Your task to perform on an android device: Go to Maps Image 0: 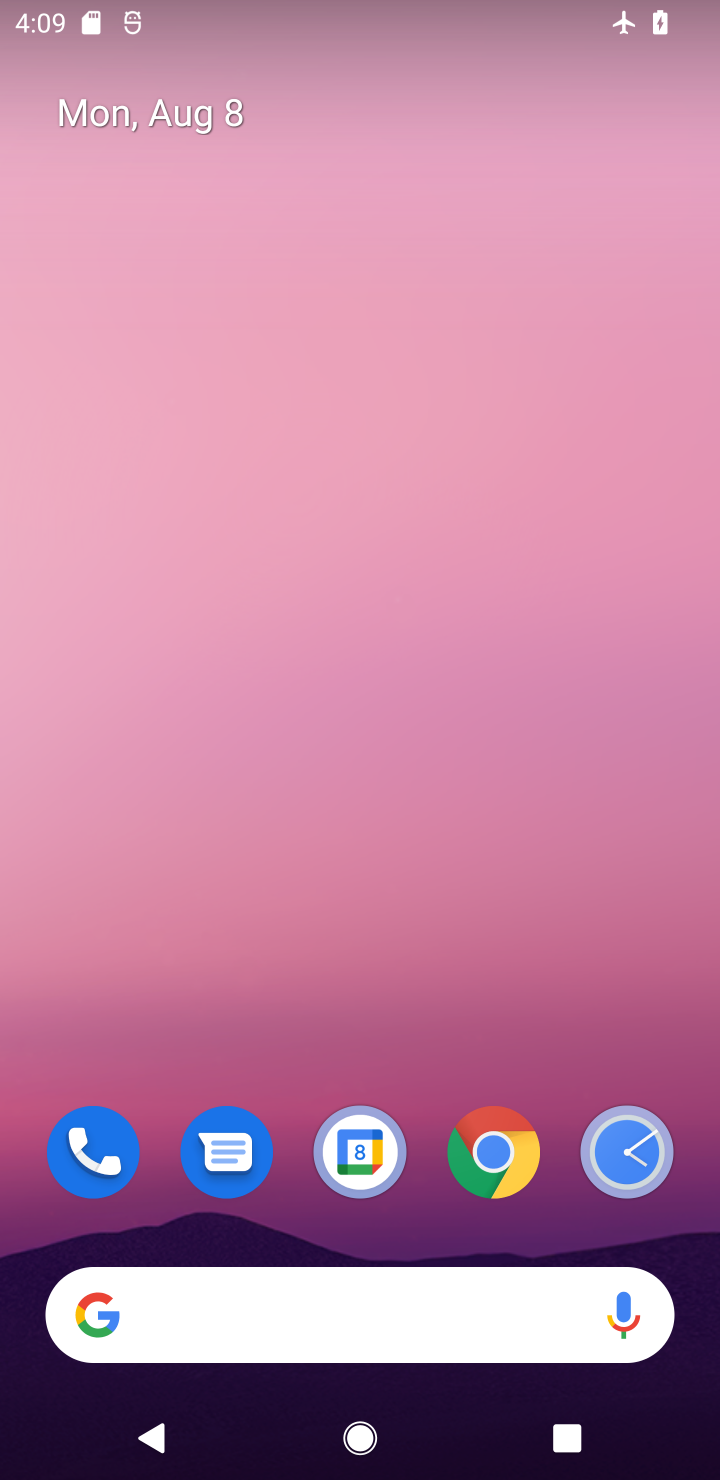
Step 0: drag from (300, 1290) to (448, 11)
Your task to perform on an android device: Go to Maps Image 1: 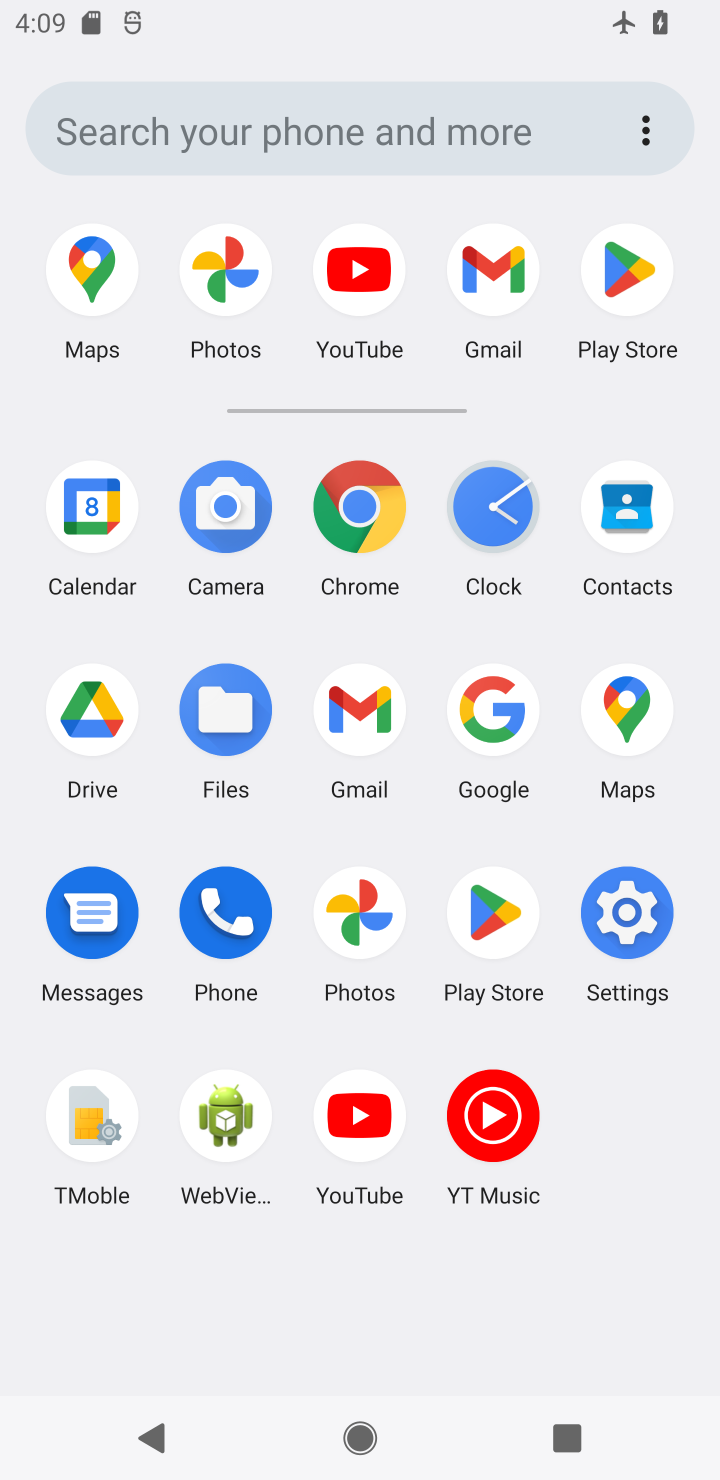
Step 1: click (631, 712)
Your task to perform on an android device: Go to Maps Image 2: 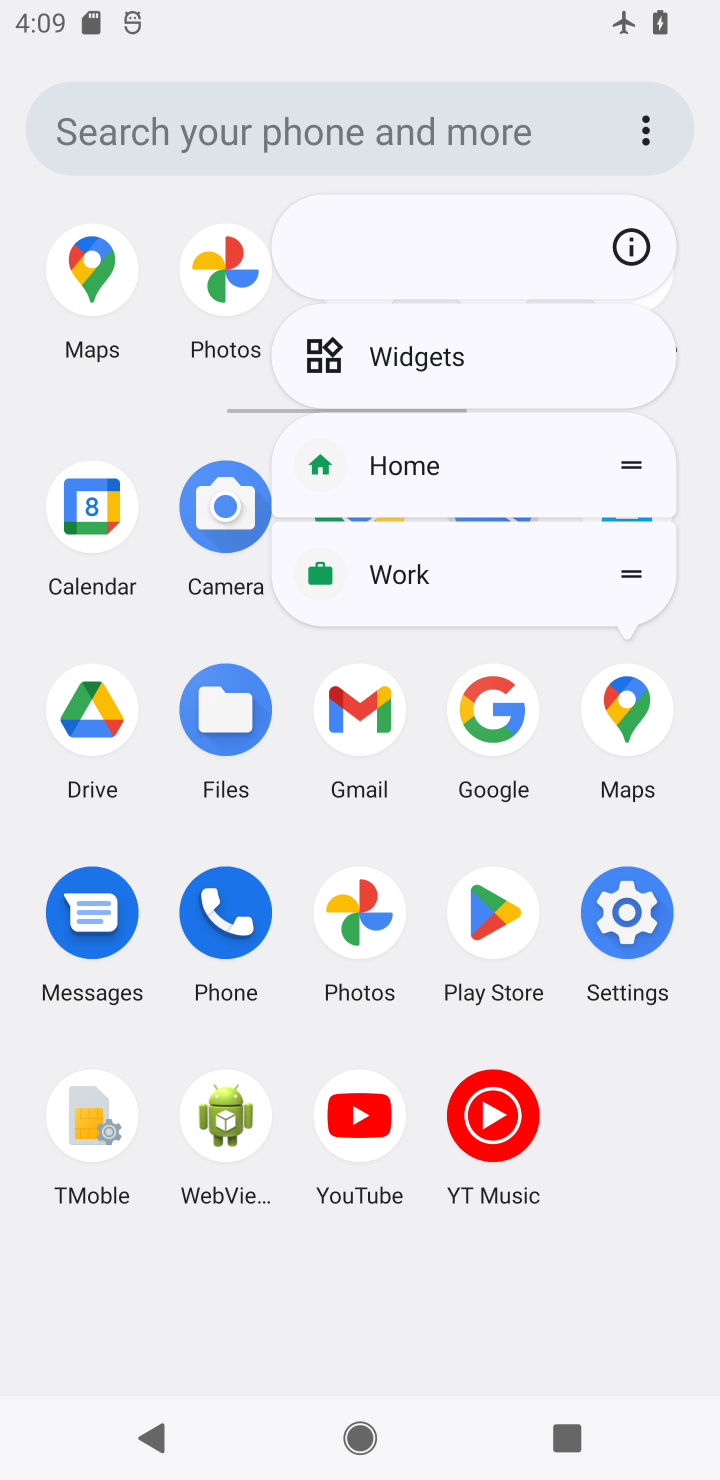
Step 2: click (615, 719)
Your task to perform on an android device: Go to Maps Image 3: 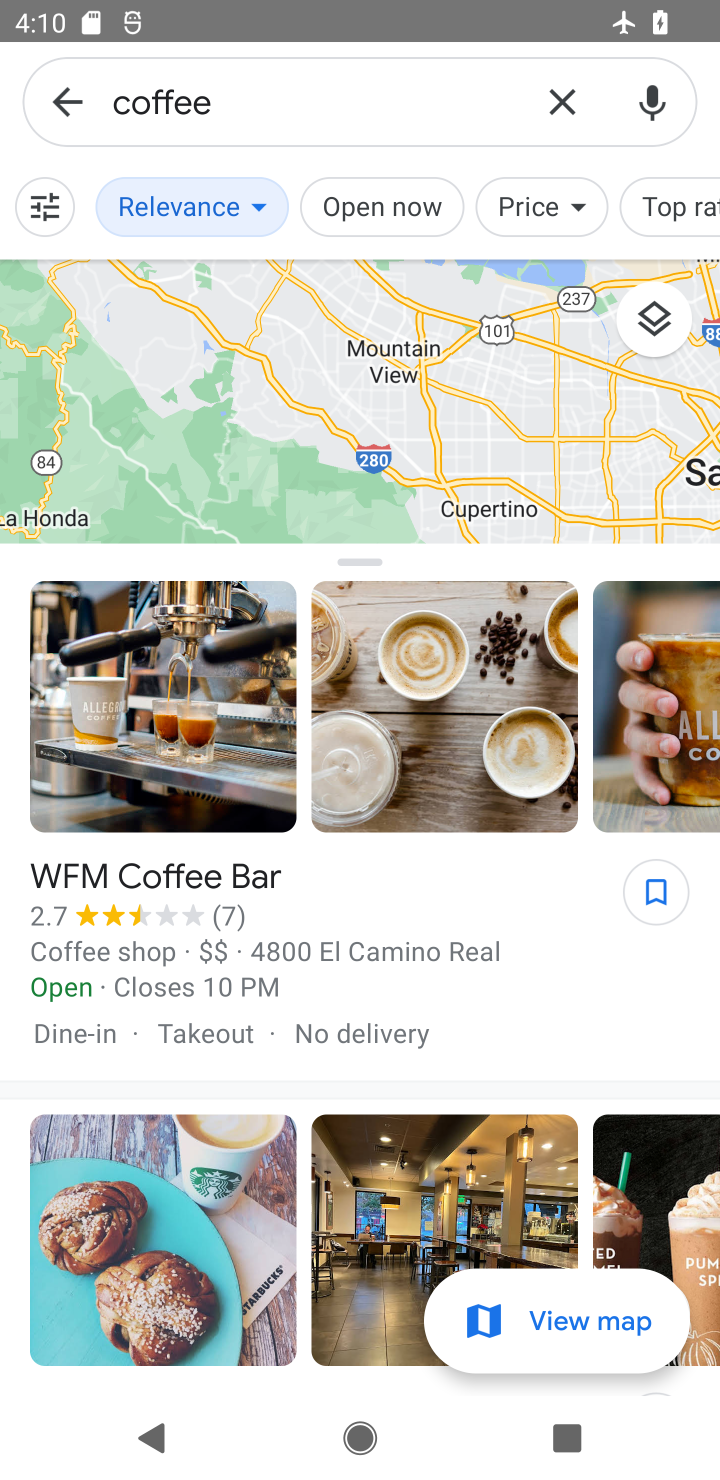
Step 3: task complete